Your task to perform on an android device: open app "Messenger Lite" (install if not already installed), go to login, and select forgot password Image 0: 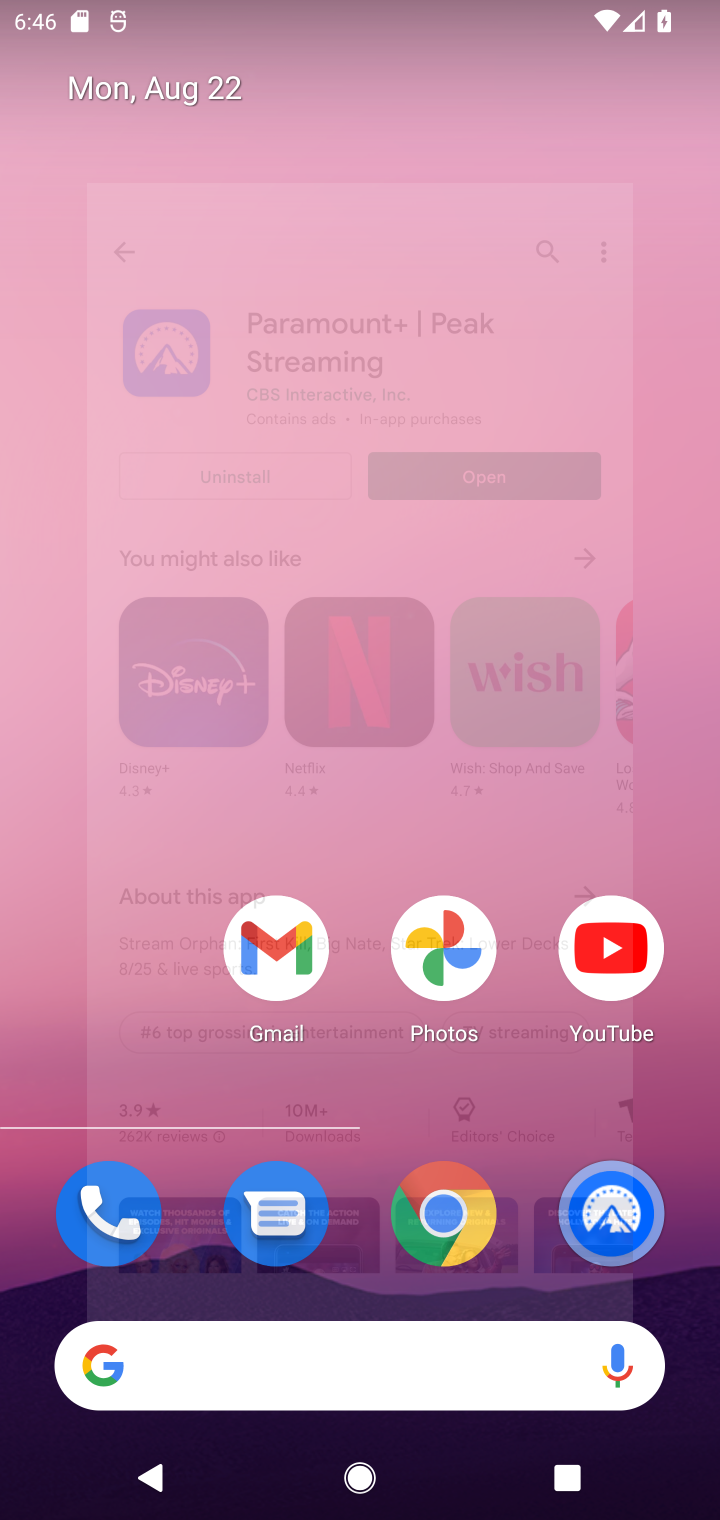
Step 0: press home button
Your task to perform on an android device: open app "Messenger Lite" (install if not already installed), go to login, and select forgot password Image 1: 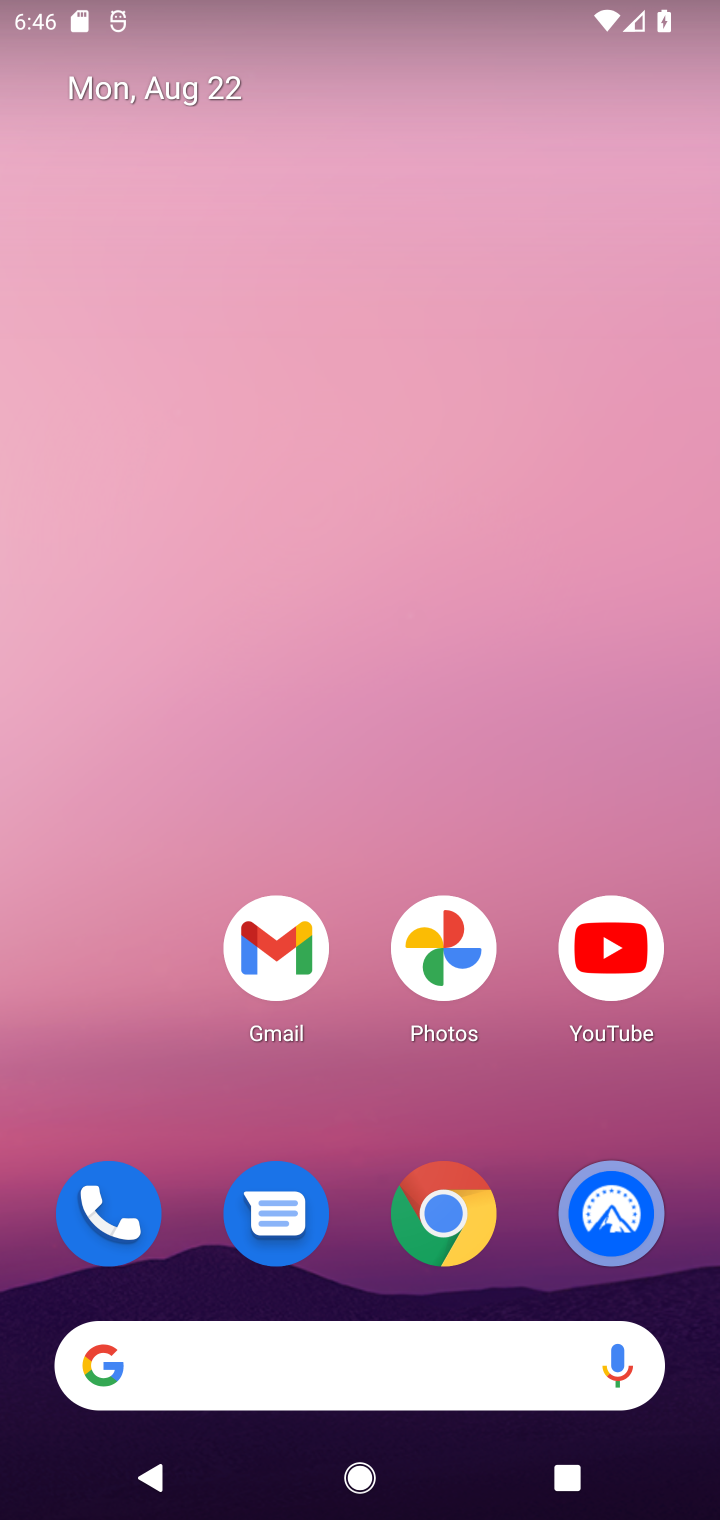
Step 1: drag from (351, 1119) to (167, 214)
Your task to perform on an android device: open app "Messenger Lite" (install if not already installed), go to login, and select forgot password Image 2: 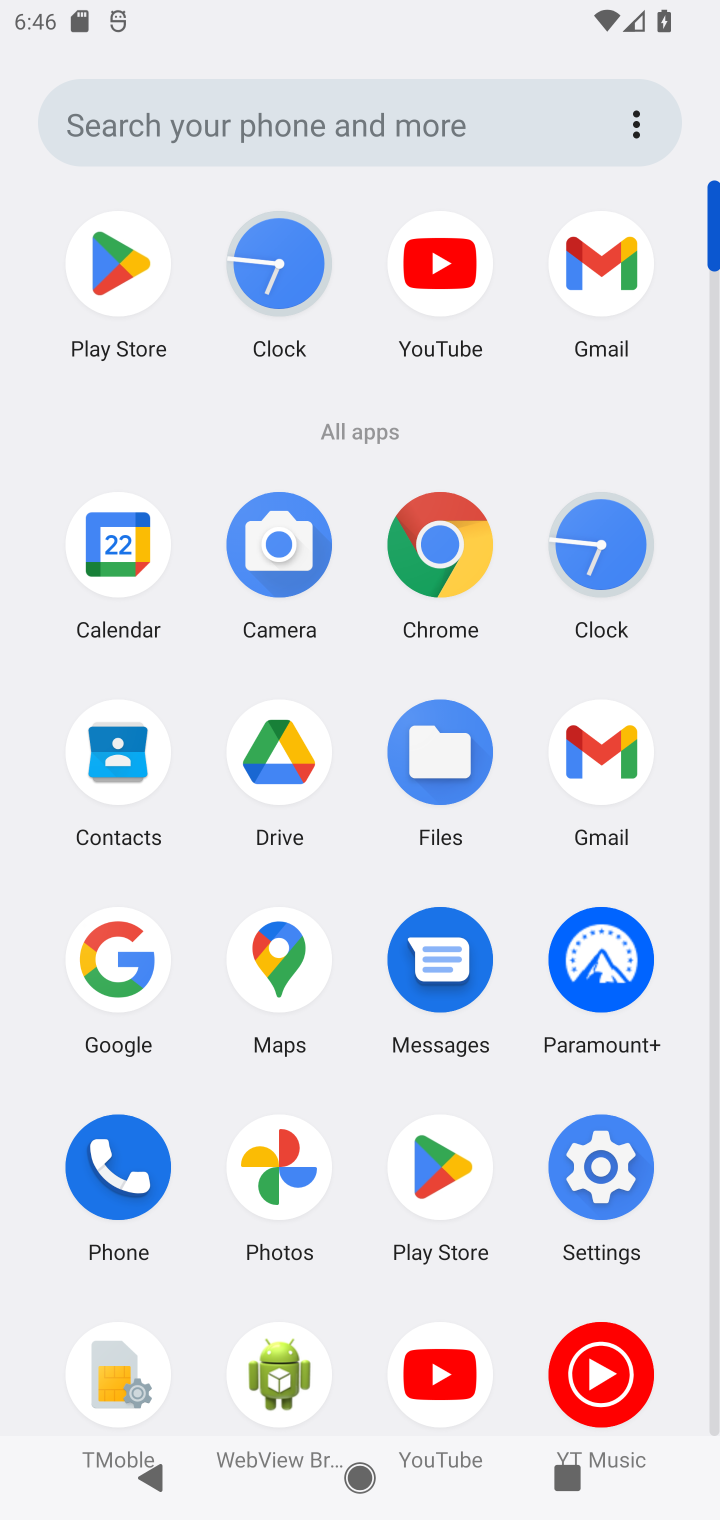
Step 2: click (138, 260)
Your task to perform on an android device: open app "Messenger Lite" (install if not already installed), go to login, and select forgot password Image 3: 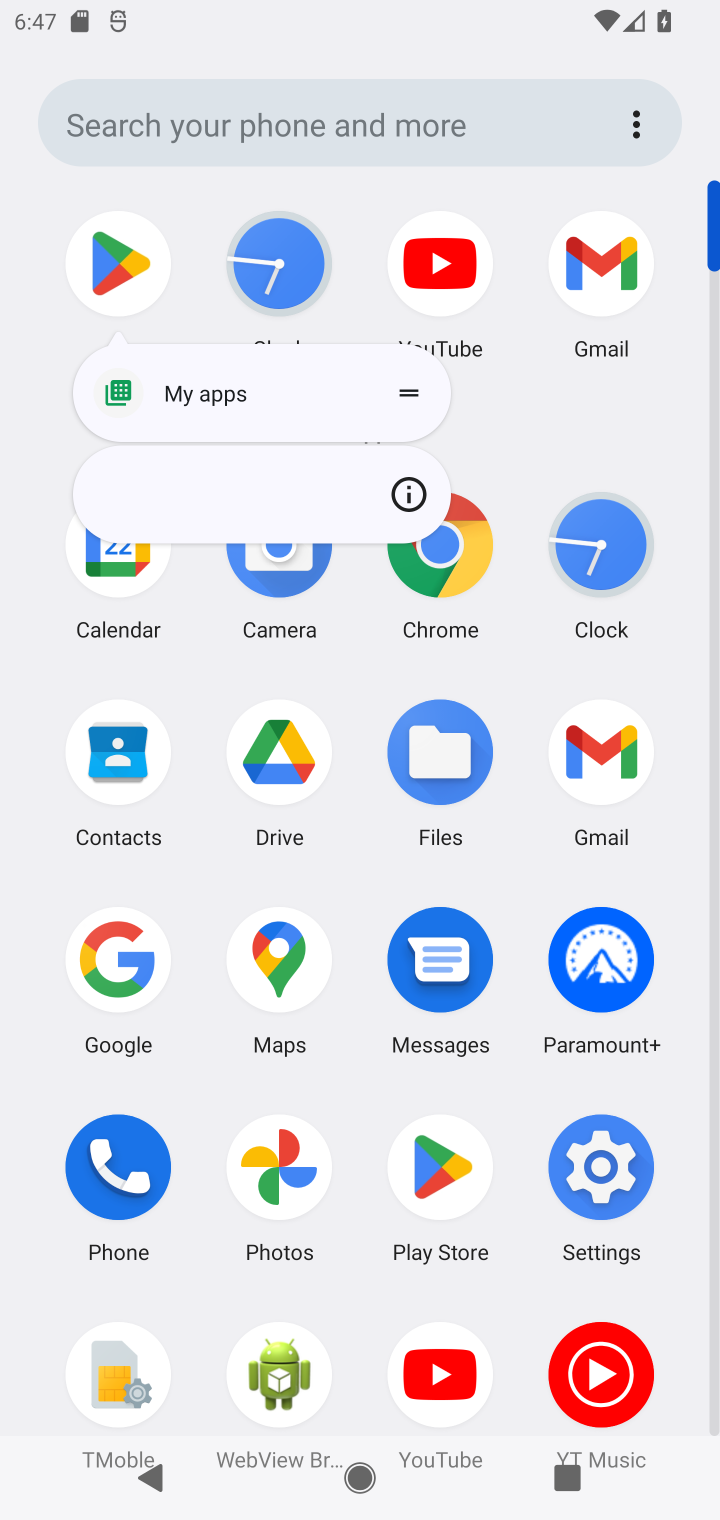
Step 3: click (116, 256)
Your task to perform on an android device: open app "Messenger Lite" (install if not already installed), go to login, and select forgot password Image 4: 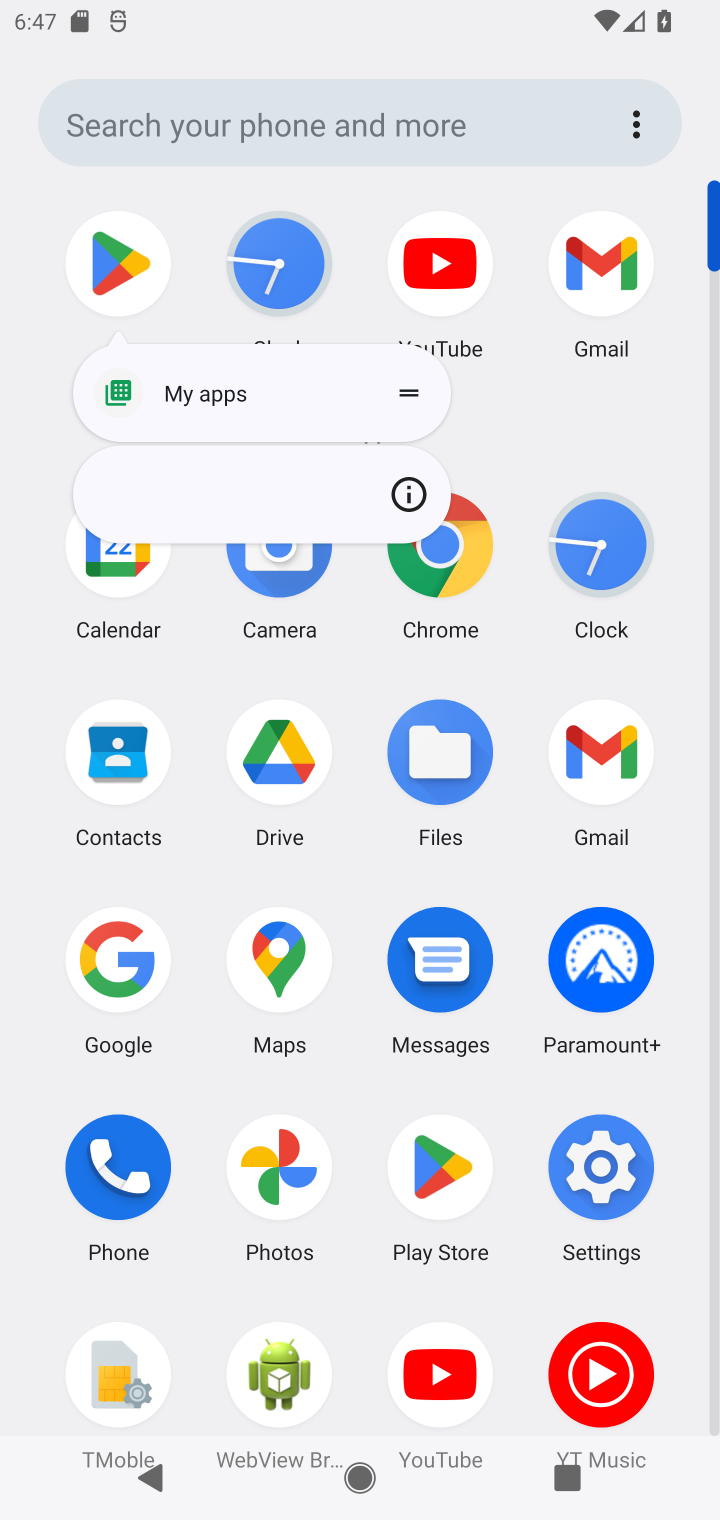
Step 4: click (116, 256)
Your task to perform on an android device: open app "Messenger Lite" (install if not already installed), go to login, and select forgot password Image 5: 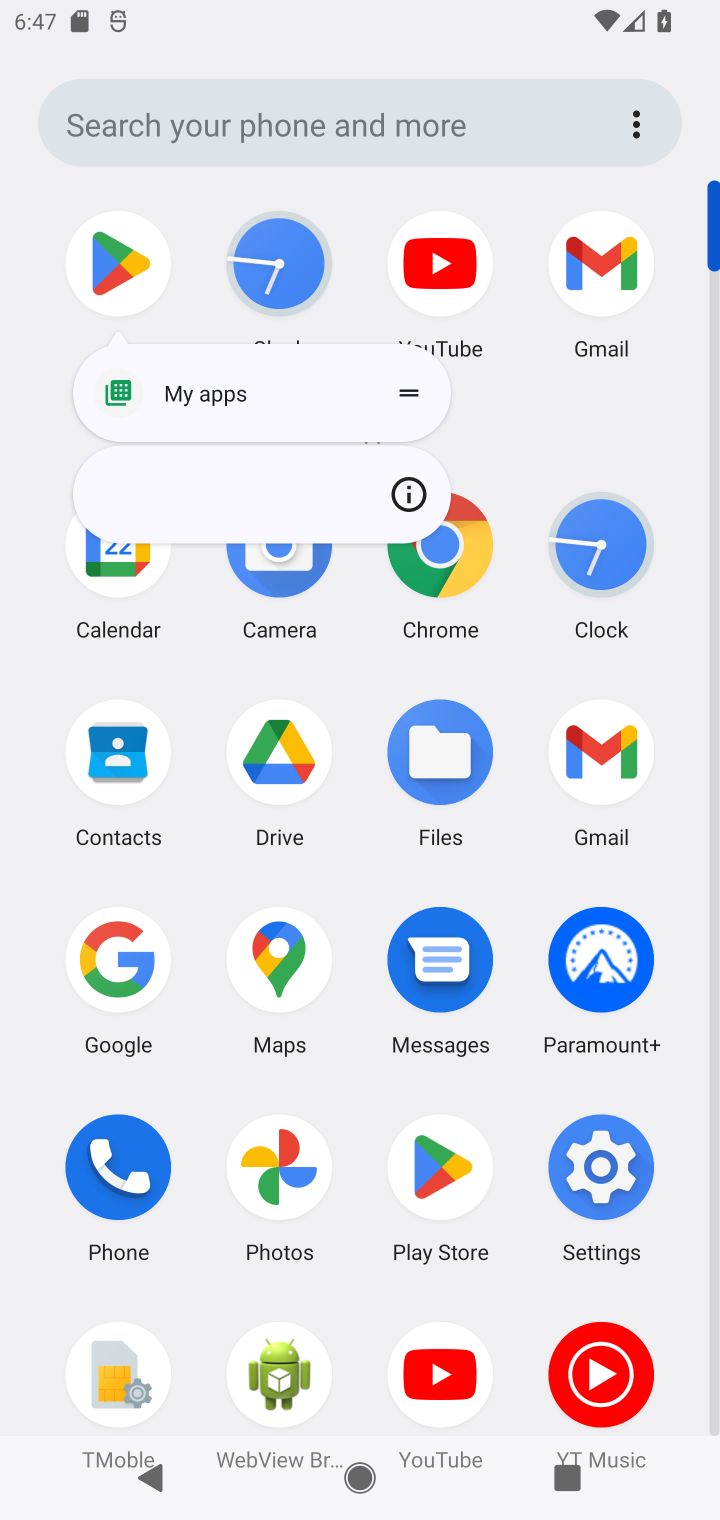
Step 5: click (458, 1175)
Your task to perform on an android device: open app "Messenger Lite" (install if not already installed), go to login, and select forgot password Image 6: 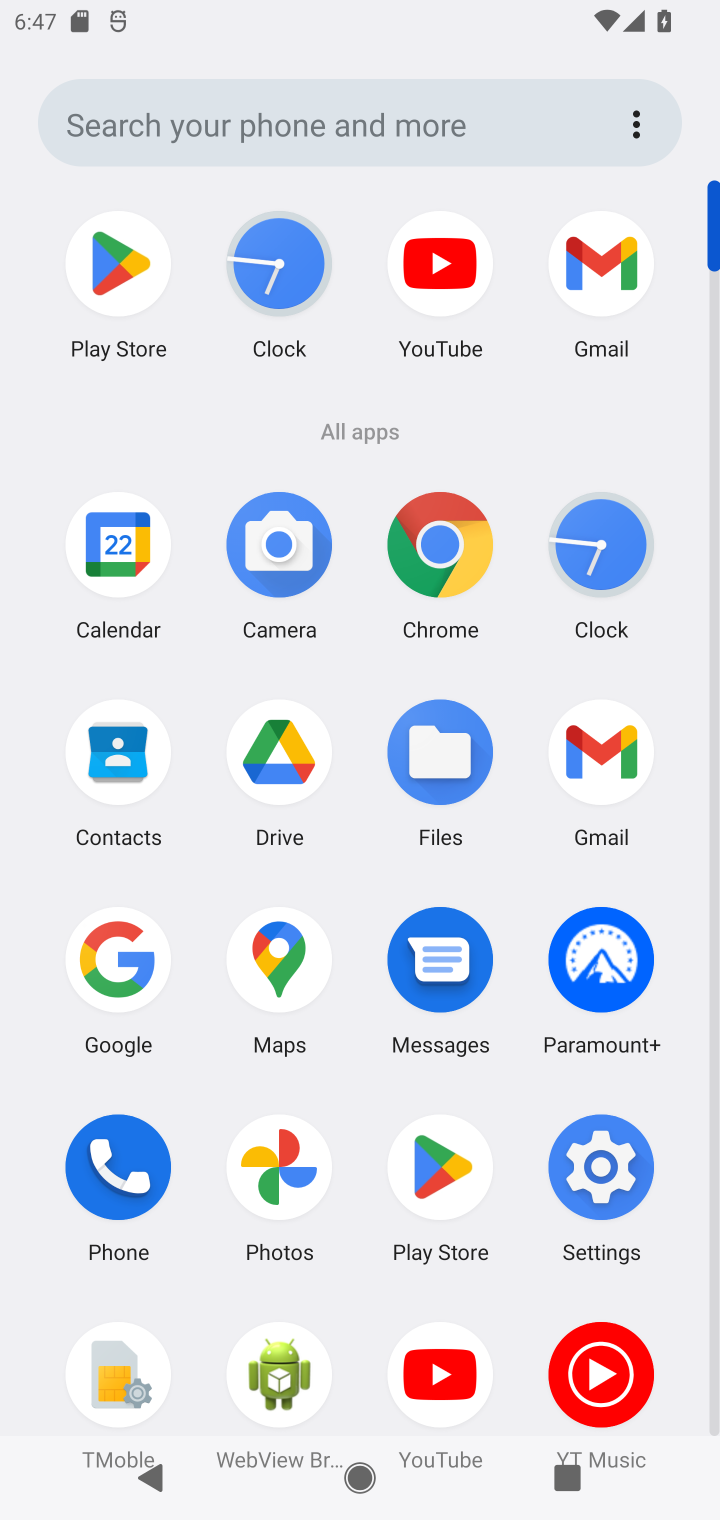
Step 6: click (438, 1184)
Your task to perform on an android device: open app "Messenger Lite" (install if not already installed), go to login, and select forgot password Image 7: 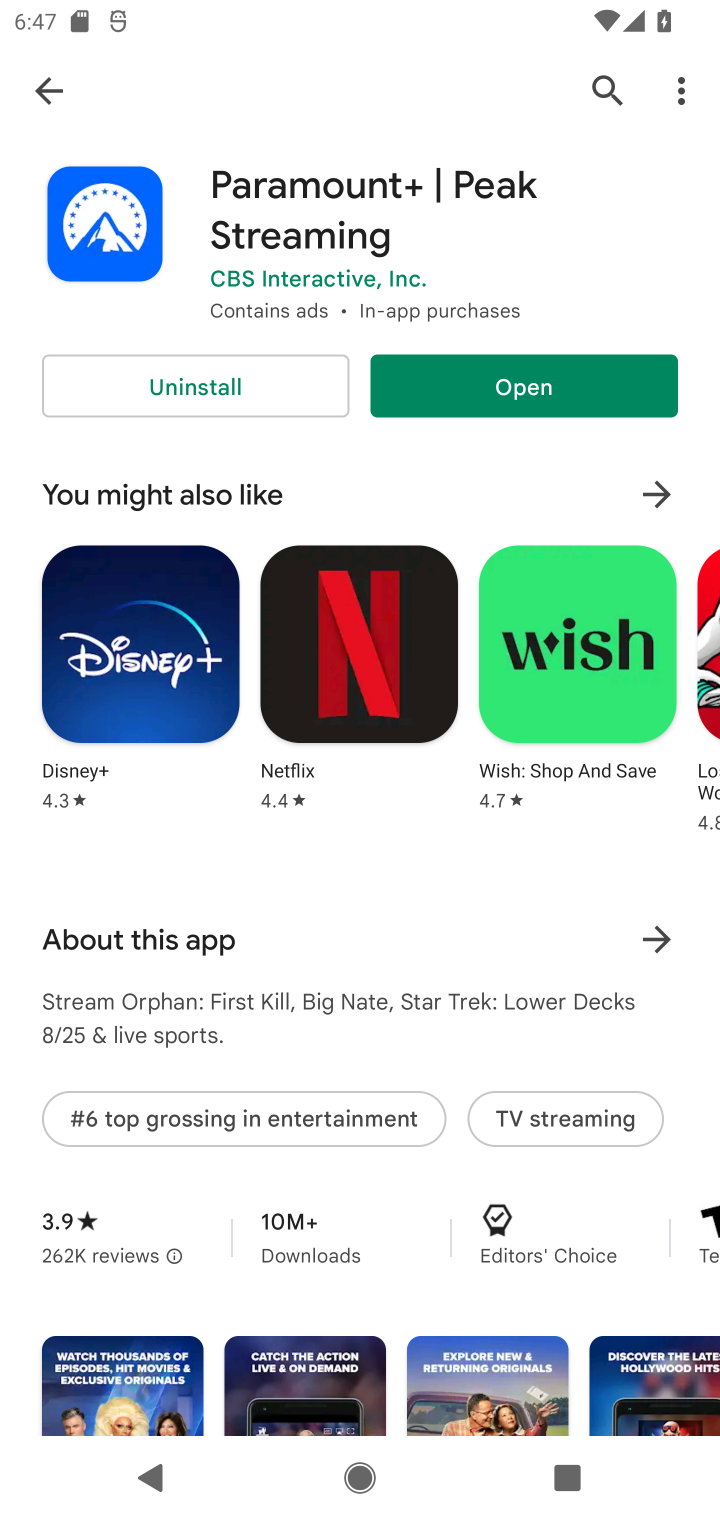
Step 7: click (594, 77)
Your task to perform on an android device: open app "Messenger Lite" (install if not already installed), go to login, and select forgot password Image 8: 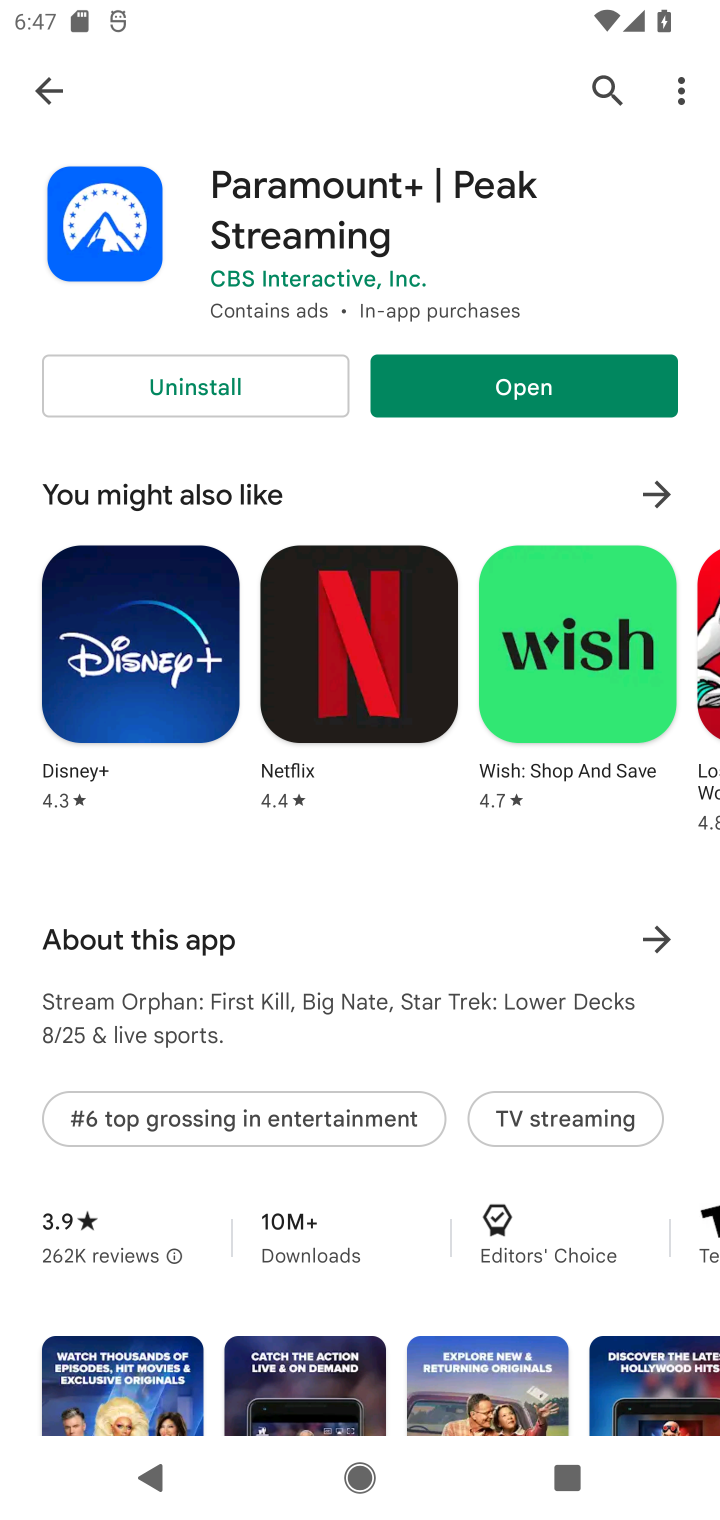
Step 8: click (591, 85)
Your task to perform on an android device: open app "Messenger Lite" (install if not already installed), go to login, and select forgot password Image 9: 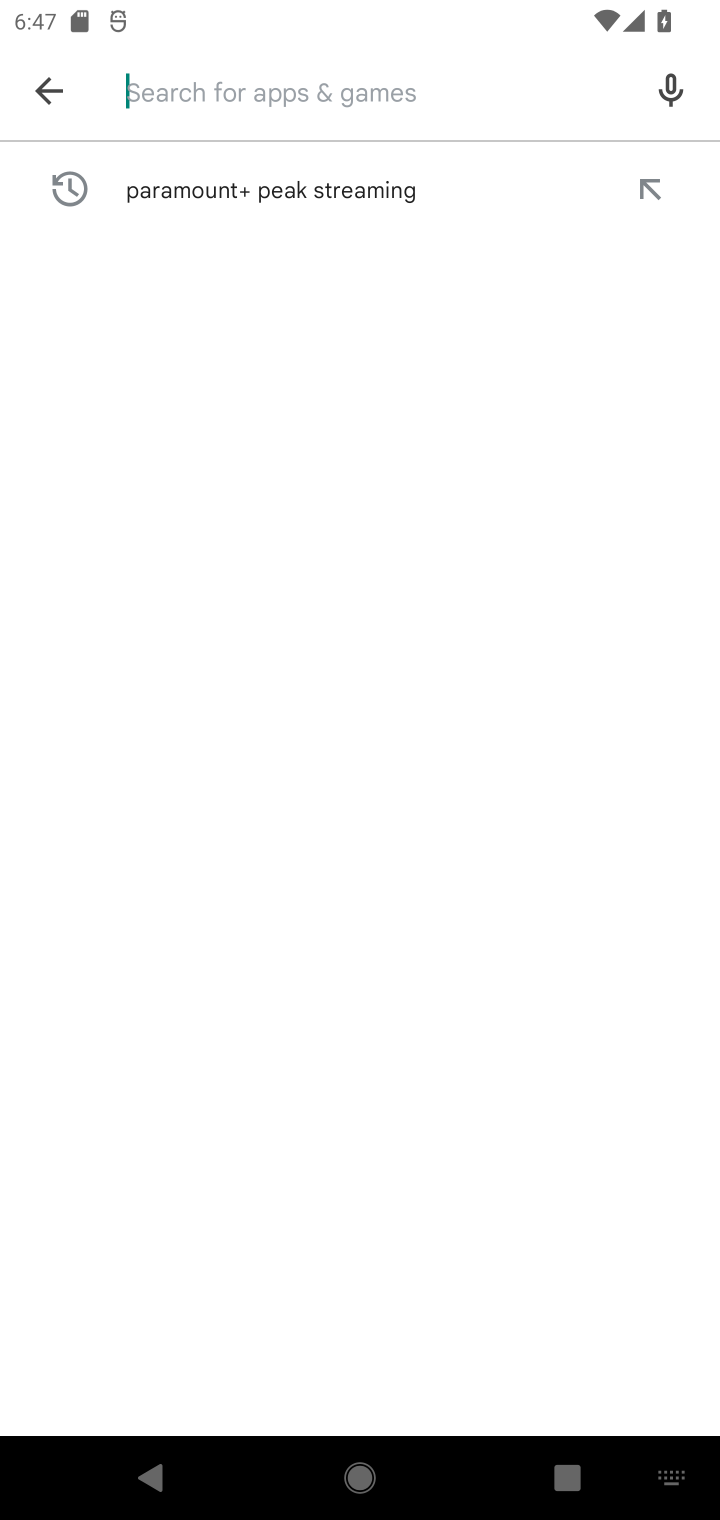
Step 9: type "Messenger Lite"
Your task to perform on an android device: open app "Messenger Lite" (install if not already installed), go to login, and select forgot password Image 10: 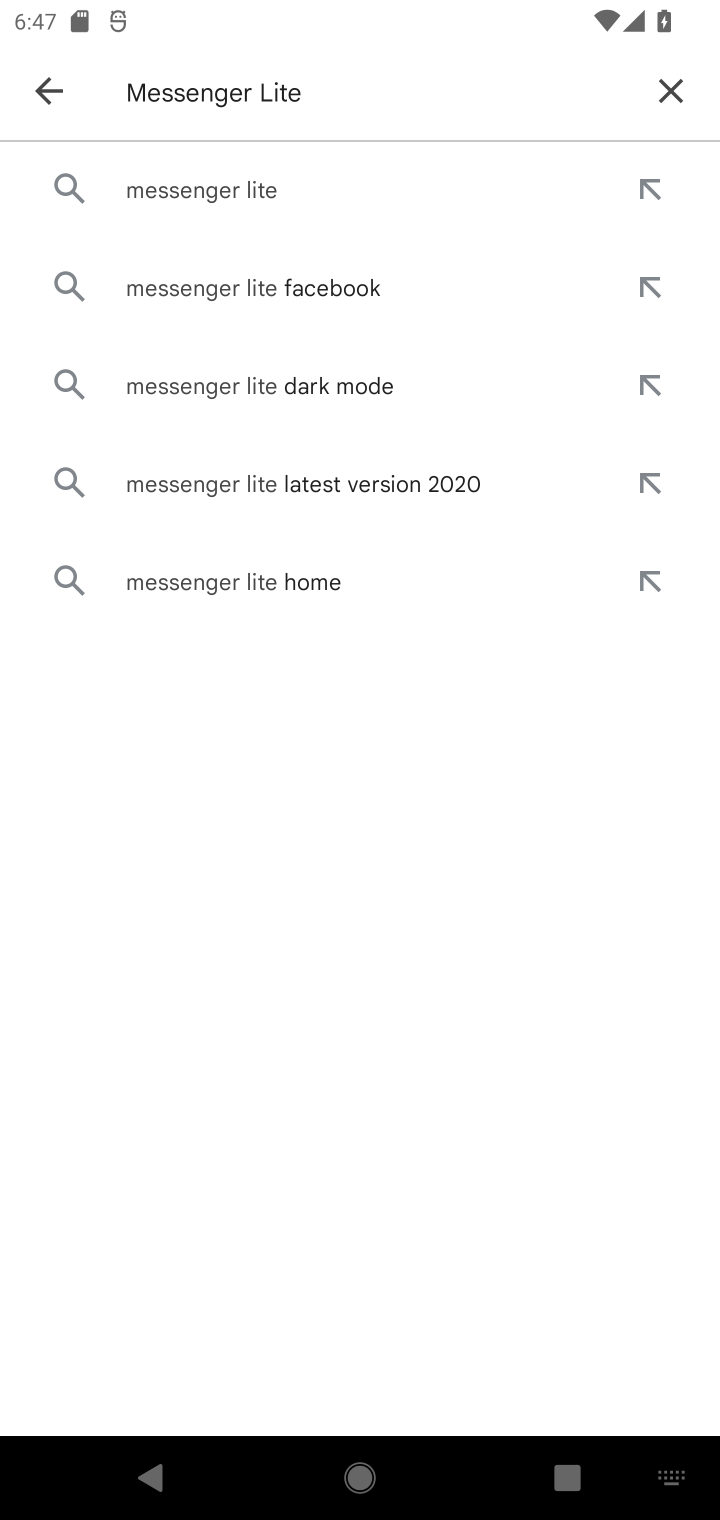
Step 10: click (245, 193)
Your task to perform on an android device: open app "Messenger Lite" (install if not already installed), go to login, and select forgot password Image 11: 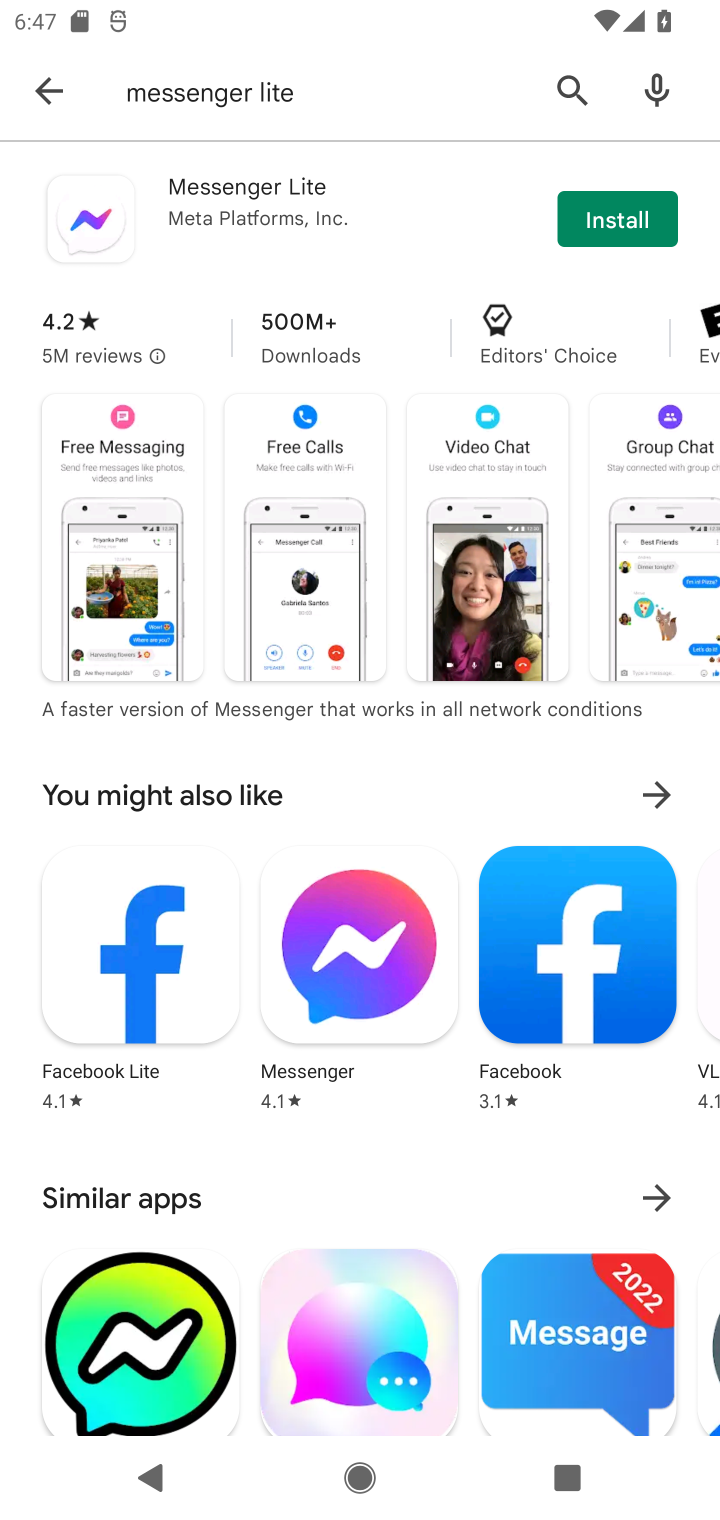
Step 11: click (612, 213)
Your task to perform on an android device: open app "Messenger Lite" (install if not already installed), go to login, and select forgot password Image 12: 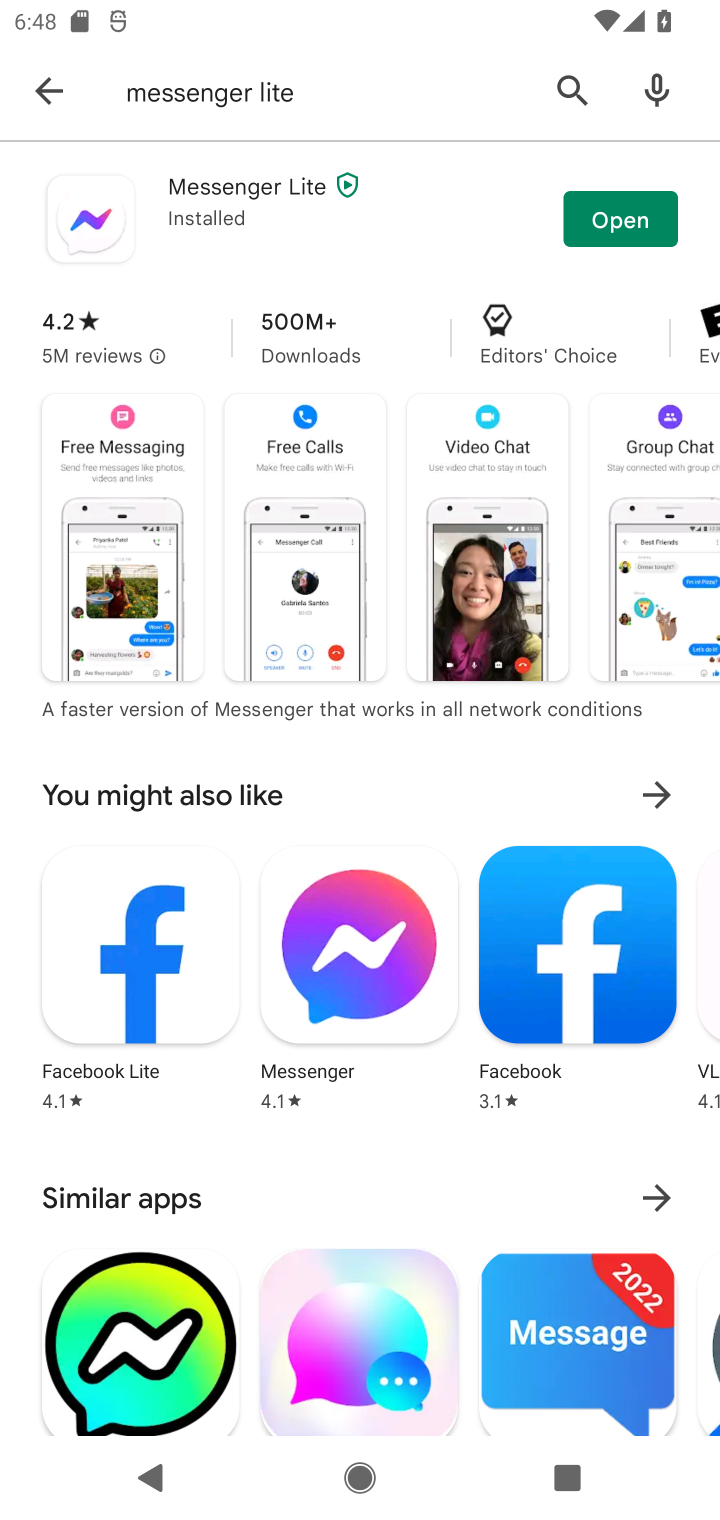
Step 12: click (606, 219)
Your task to perform on an android device: open app "Messenger Lite" (install if not already installed), go to login, and select forgot password Image 13: 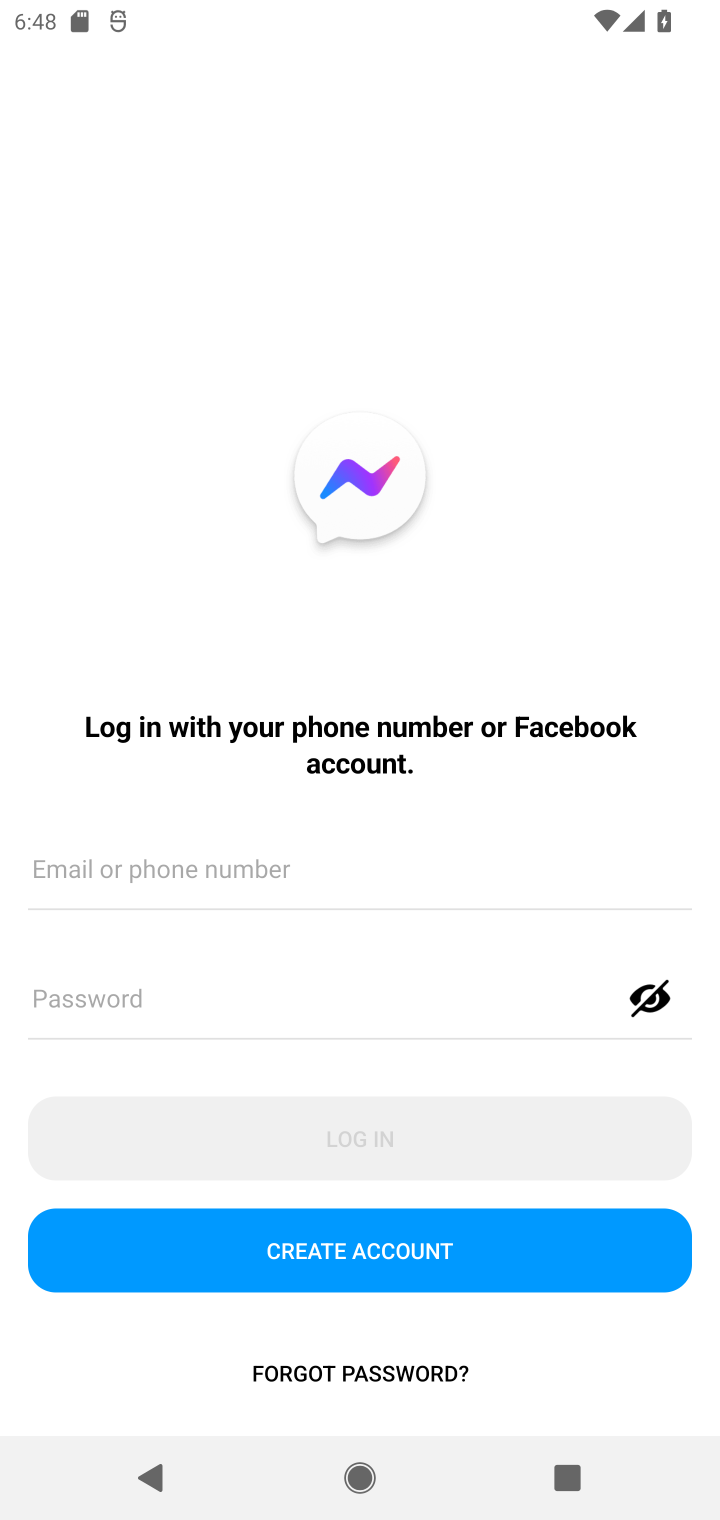
Step 13: click (321, 1392)
Your task to perform on an android device: open app "Messenger Lite" (install if not already installed), go to login, and select forgot password Image 14: 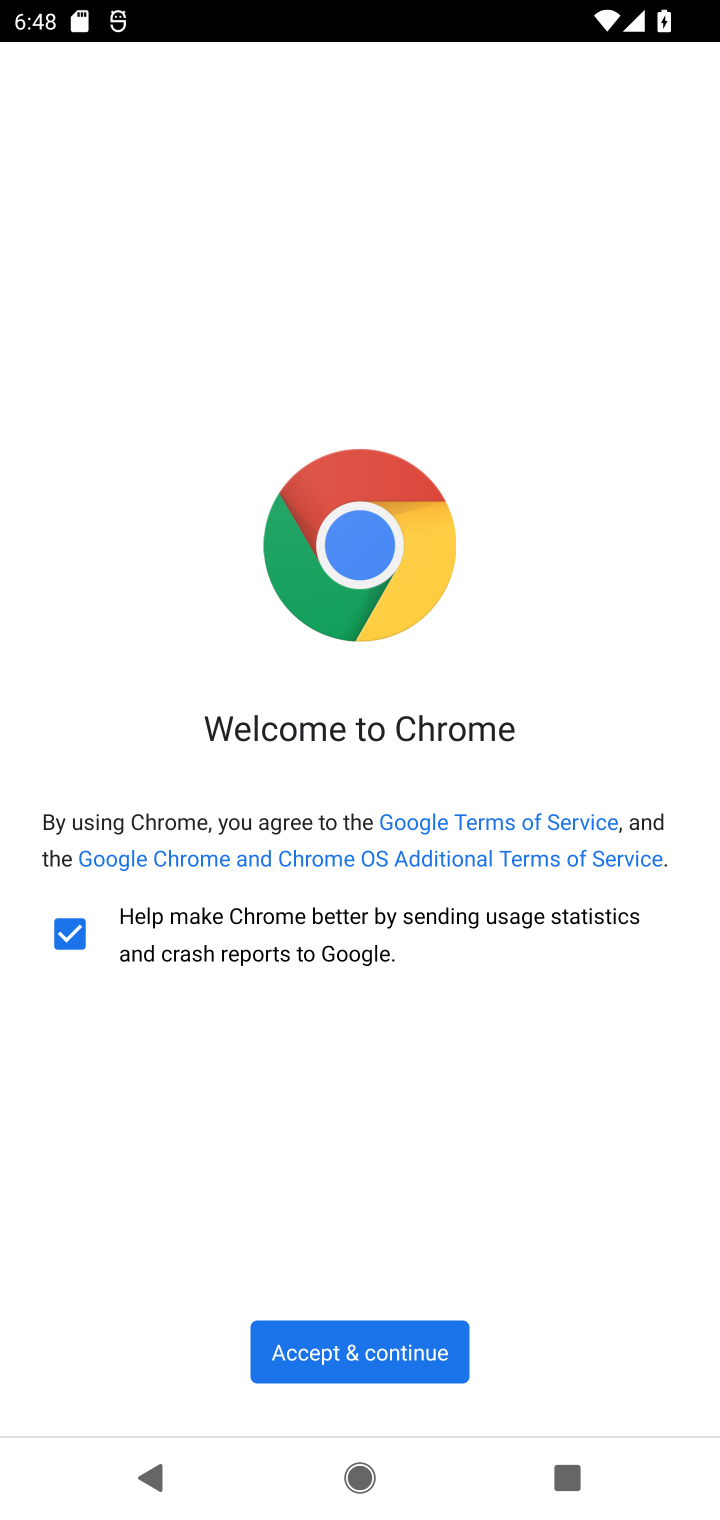
Step 14: task complete